Your task to perform on an android device: change the upload size in google photos Image 0: 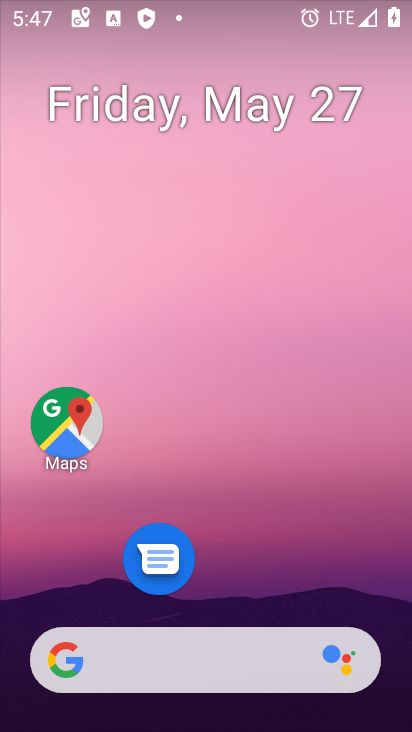
Step 0: drag from (207, 652) to (286, 71)
Your task to perform on an android device: change the upload size in google photos Image 1: 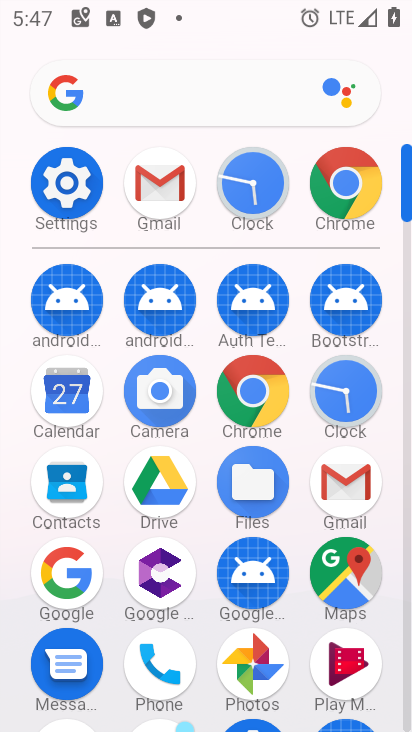
Step 1: click (253, 652)
Your task to perform on an android device: change the upload size in google photos Image 2: 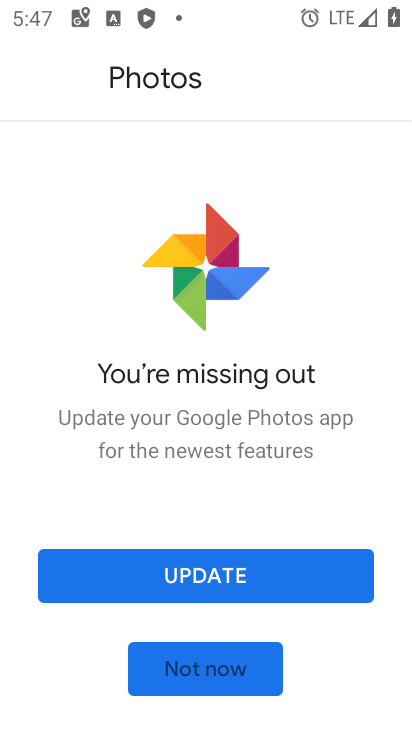
Step 2: click (285, 592)
Your task to perform on an android device: change the upload size in google photos Image 3: 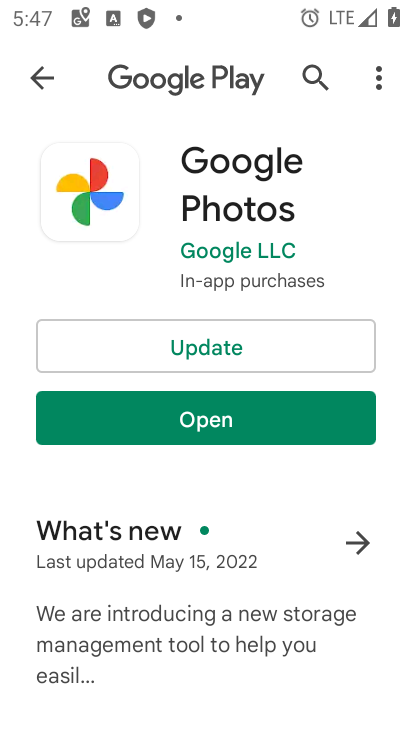
Step 3: click (232, 348)
Your task to perform on an android device: change the upload size in google photos Image 4: 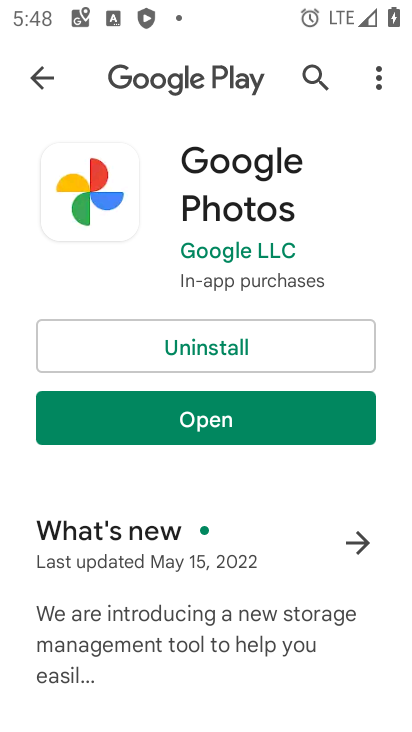
Step 4: click (314, 429)
Your task to perform on an android device: change the upload size in google photos Image 5: 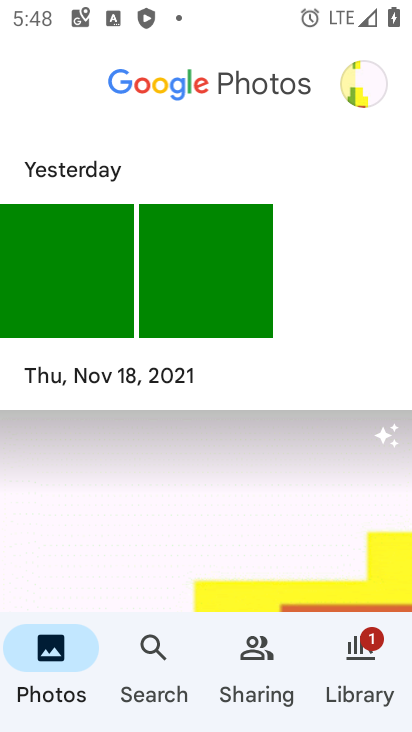
Step 5: click (380, 92)
Your task to perform on an android device: change the upload size in google photos Image 6: 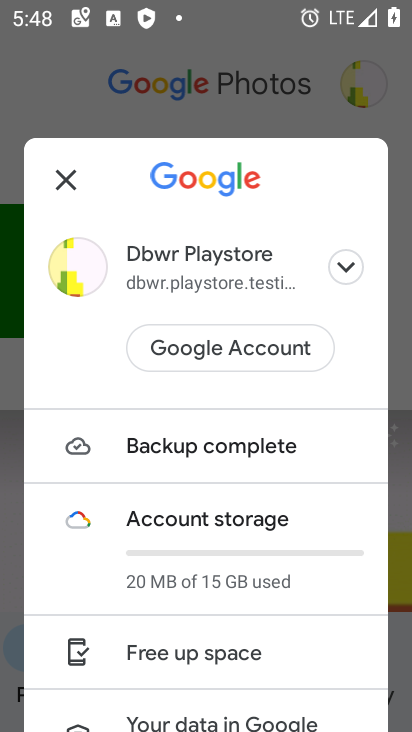
Step 6: click (233, 458)
Your task to perform on an android device: change the upload size in google photos Image 7: 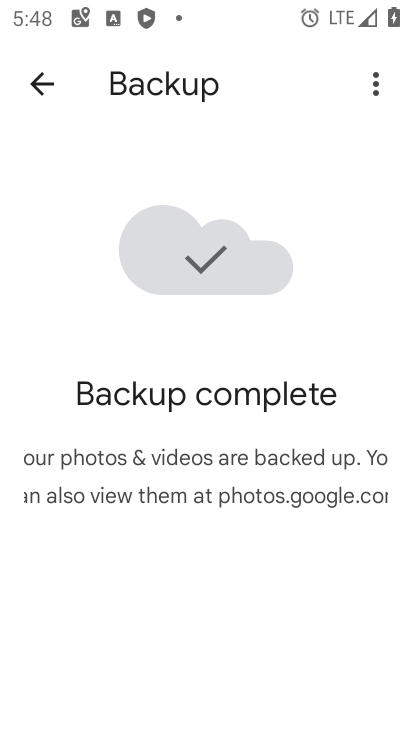
Step 7: click (368, 78)
Your task to perform on an android device: change the upload size in google photos Image 8: 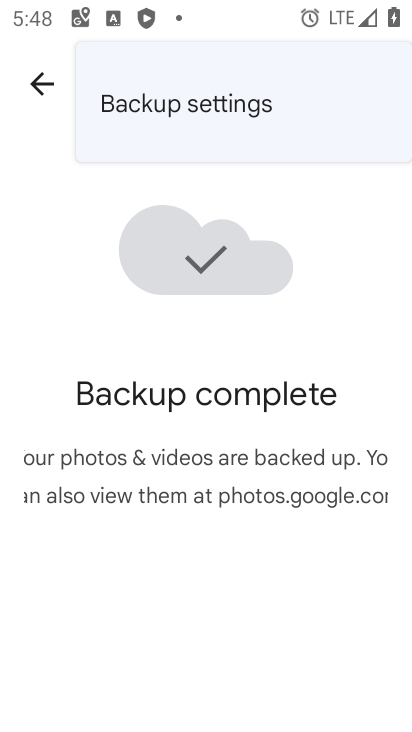
Step 8: click (273, 88)
Your task to perform on an android device: change the upload size in google photos Image 9: 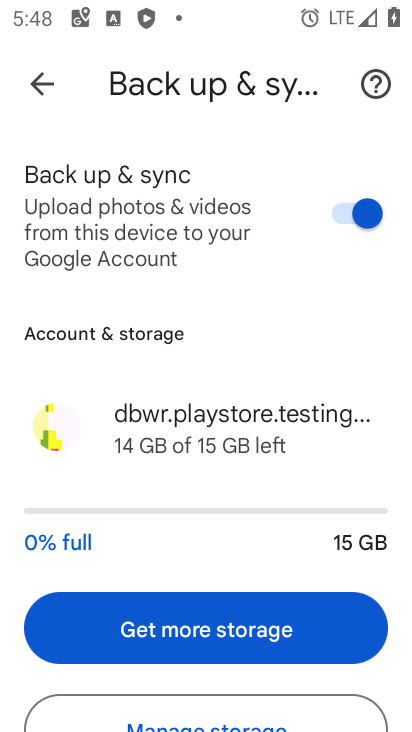
Step 9: drag from (301, 718) to (299, 297)
Your task to perform on an android device: change the upload size in google photos Image 10: 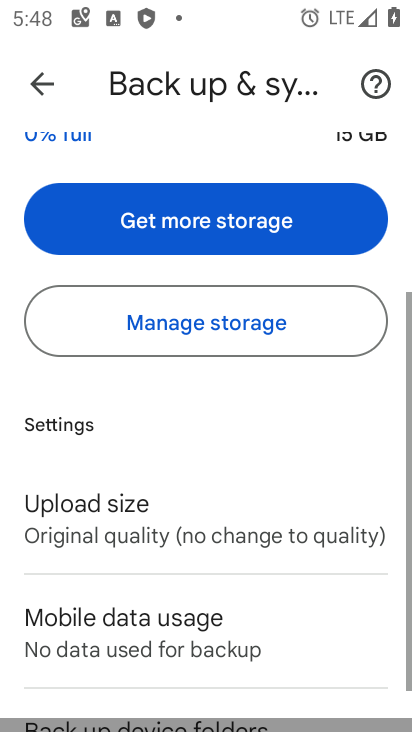
Step 10: click (310, 537)
Your task to perform on an android device: change the upload size in google photos Image 11: 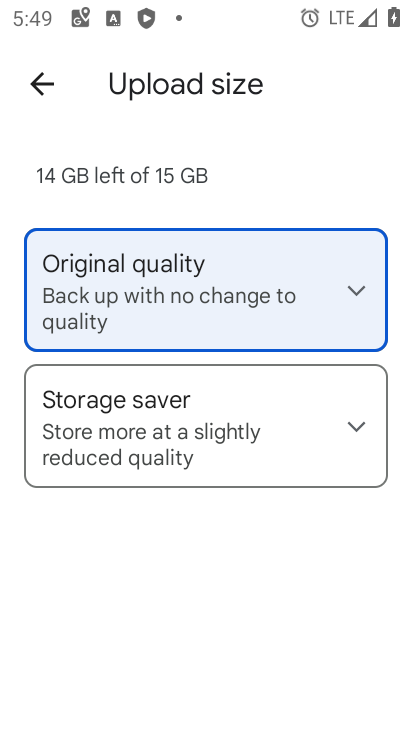
Step 11: click (223, 317)
Your task to perform on an android device: change the upload size in google photos Image 12: 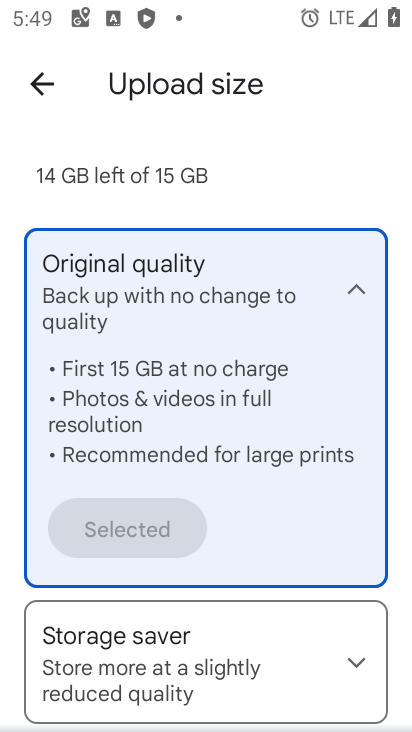
Step 12: task complete